Your task to perform on an android device: stop showing notifications on the lock screen Image 0: 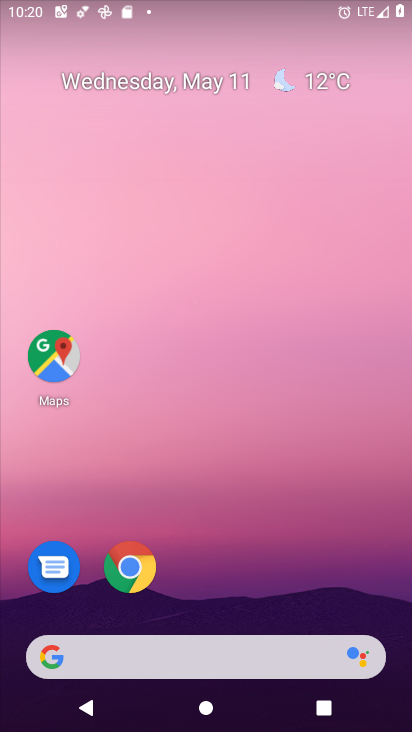
Step 0: press home button
Your task to perform on an android device: stop showing notifications on the lock screen Image 1: 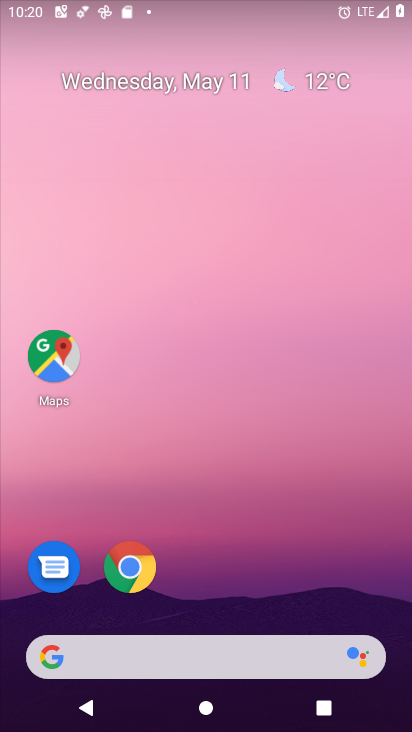
Step 1: drag from (247, 467) to (216, 47)
Your task to perform on an android device: stop showing notifications on the lock screen Image 2: 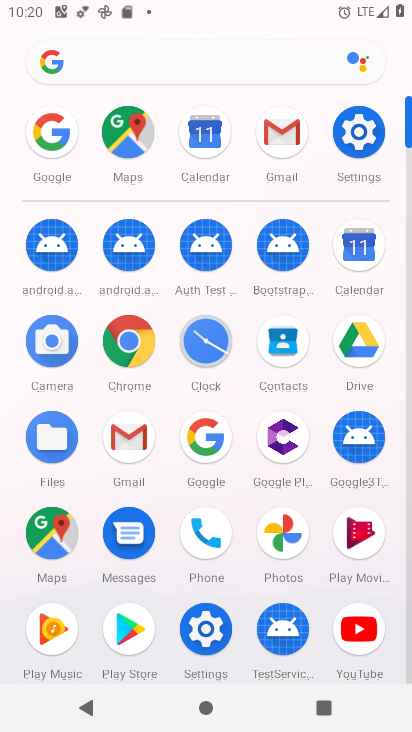
Step 2: click (352, 130)
Your task to perform on an android device: stop showing notifications on the lock screen Image 3: 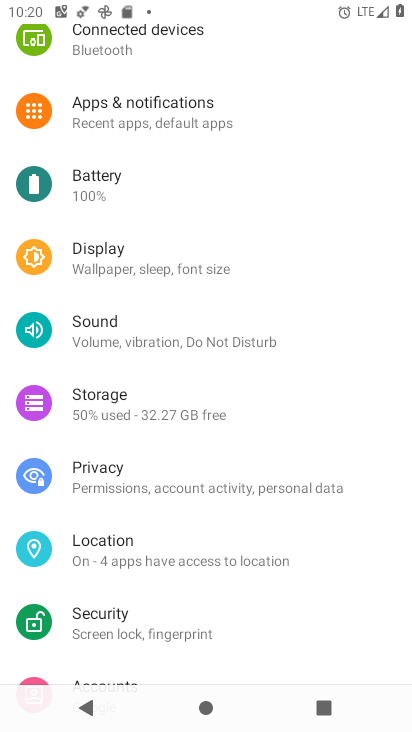
Step 3: click (184, 118)
Your task to perform on an android device: stop showing notifications on the lock screen Image 4: 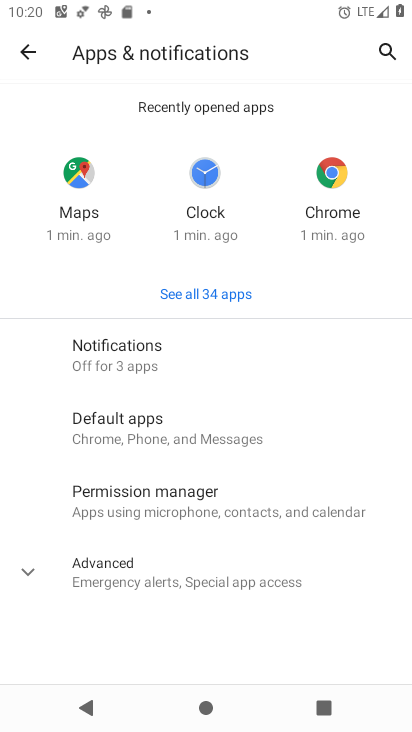
Step 4: click (181, 360)
Your task to perform on an android device: stop showing notifications on the lock screen Image 5: 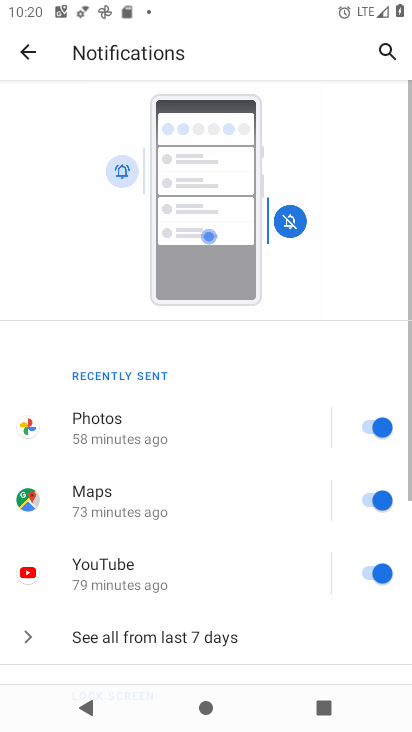
Step 5: drag from (196, 639) to (189, 201)
Your task to perform on an android device: stop showing notifications on the lock screen Image 6: 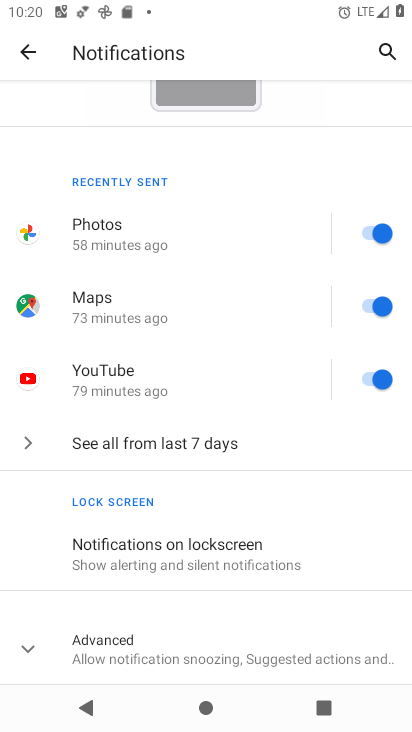
Step 6: click (191, 549)
Your task to perform on an android device: stop showing notifications on the lock screen Image 7: 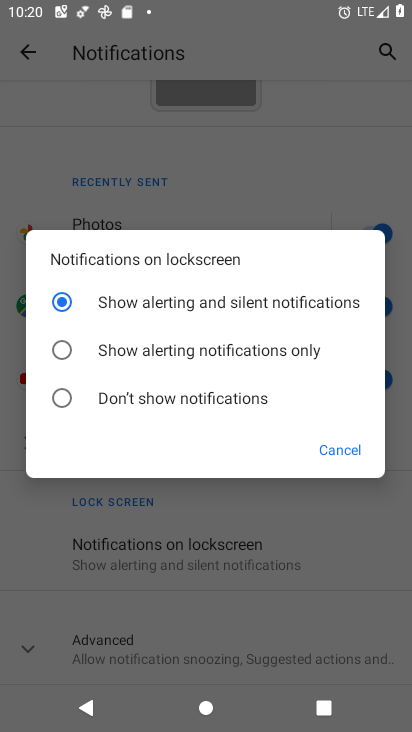
Step 7: click (169, 395)
Your task to perform on an android device: stop showing notifications on the lock screen Image 8: 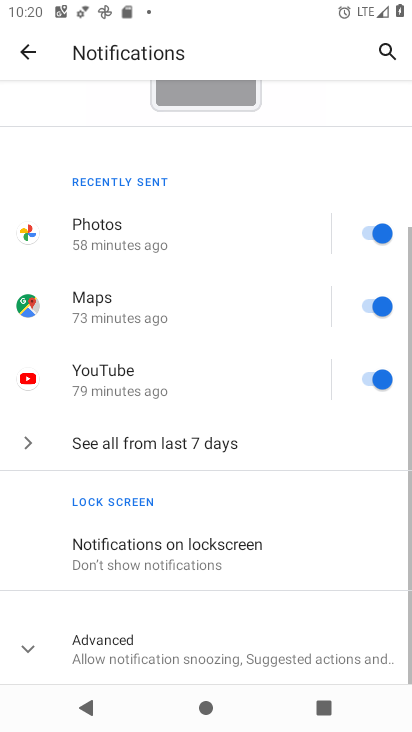
Step 8: task complete